Your task to perform on an android device: Open Maps and search for coffee Image 0: 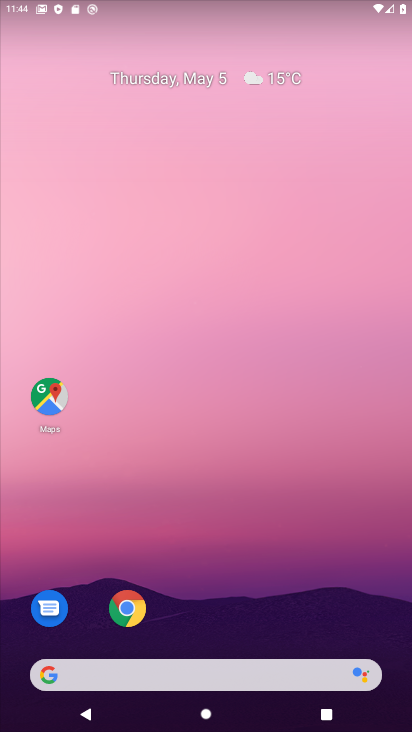
Step 0: click (50, 395)
Your task to perform on an android device: Open Maps and search for coffee Image 1: 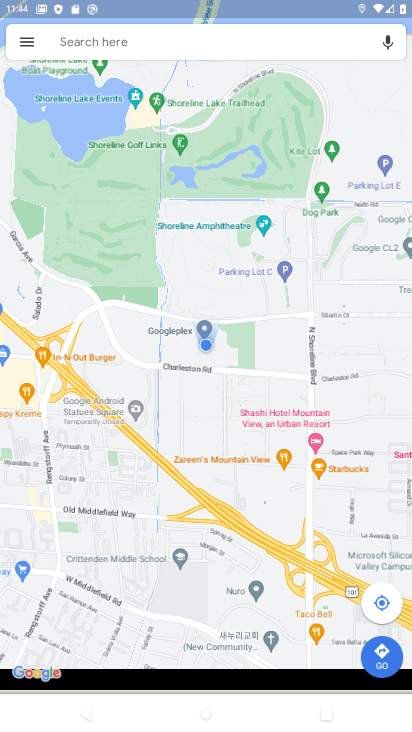
Step 1: click (188, 43)
Your task to perform on an android device: Open Maps and search for coffee Image 2: 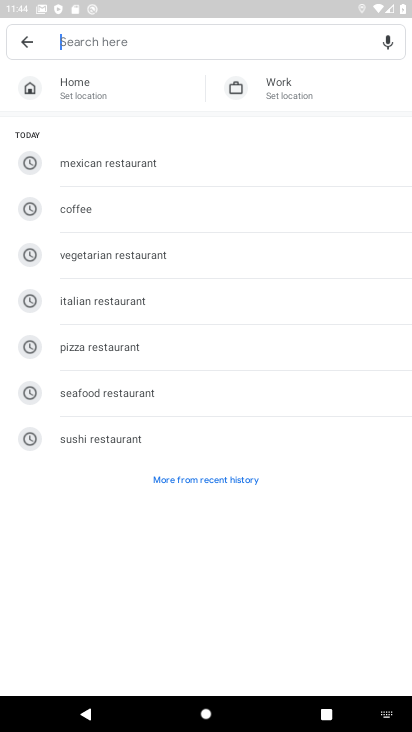
Step 2: click (89, 214)
Your task to perform on an android device: Open Maps and search for coffee Image 3: 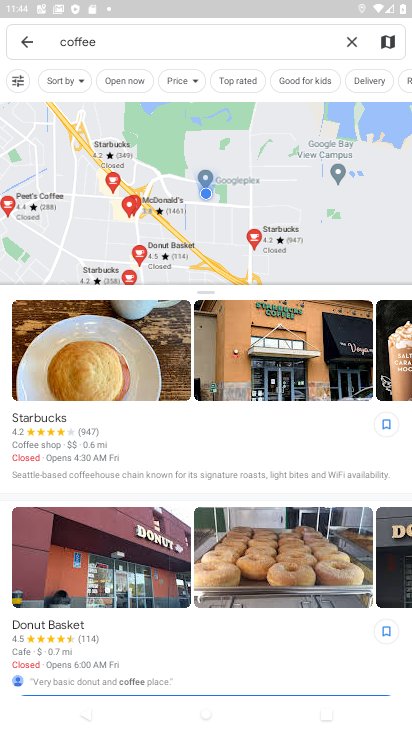
Step 3: task complete